Your task to perform on an android device: open chrome and create a bookmark for the current page Image 0: 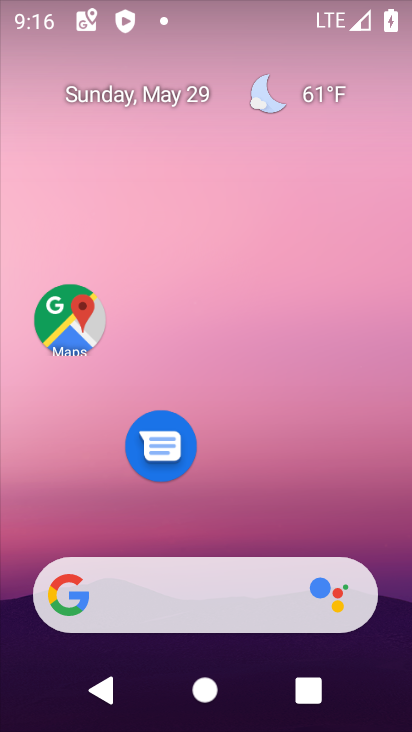
Step 0: drag from (237, 534) to (265, 246)
Your task to perform on an android device: open chrome and create a bookmark for the current page Image 1: 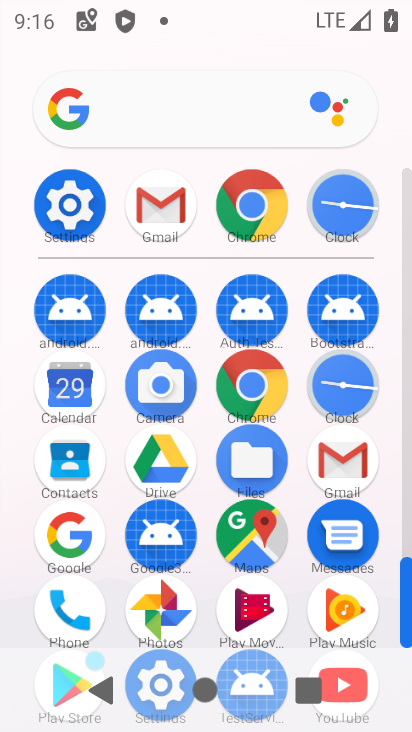
Step 1: click (253, 217)
Your task to perform on an android device: open chrome and create a bookmark for the current page Image 2: 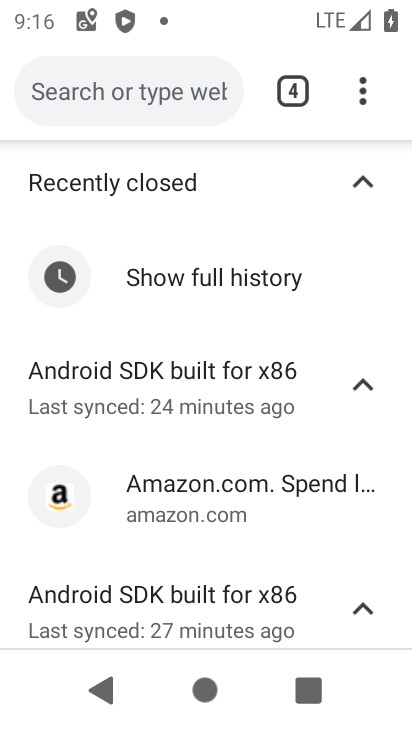
Step 2: click (300, 94)
Your task to perform on an android device: open chrome and create a bookmark for the current page Image 3: 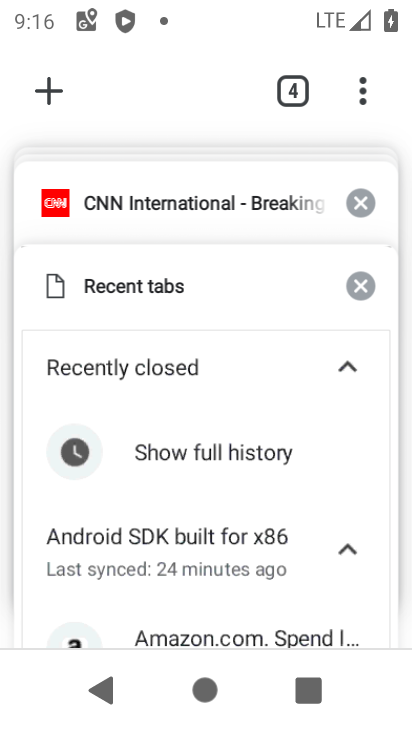
Step 3: click (132, 200)
Your task to perform on an android device: open chrome and create a bookmark for the current page Image 4: 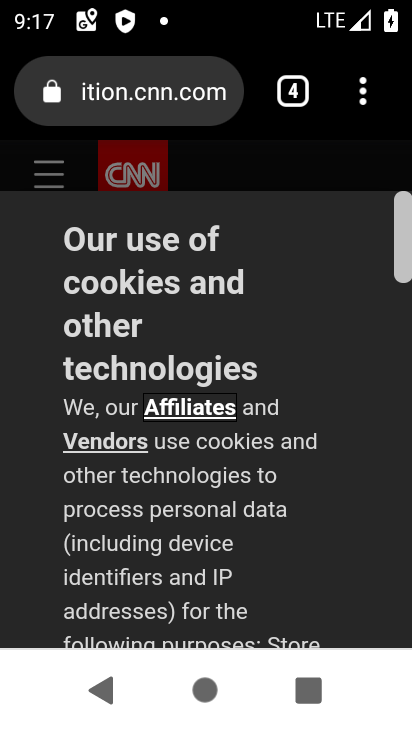
Step 4: task complete